Your task to perform on an android device: What's on my calendar today? Image 0: 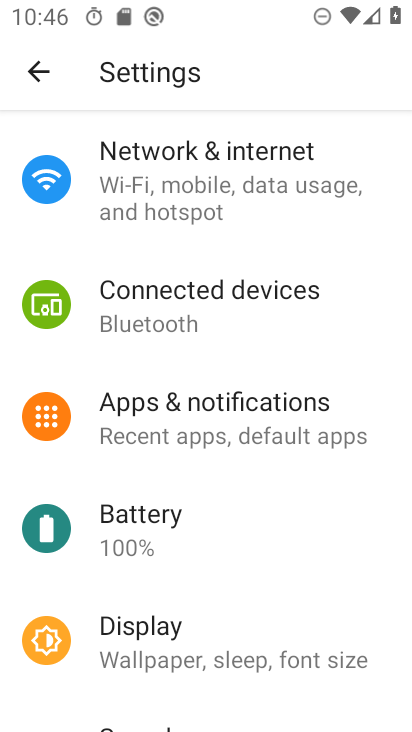
Step 0: press back button
Your task to perform on an android device: What's on my calendar today? Image 1: 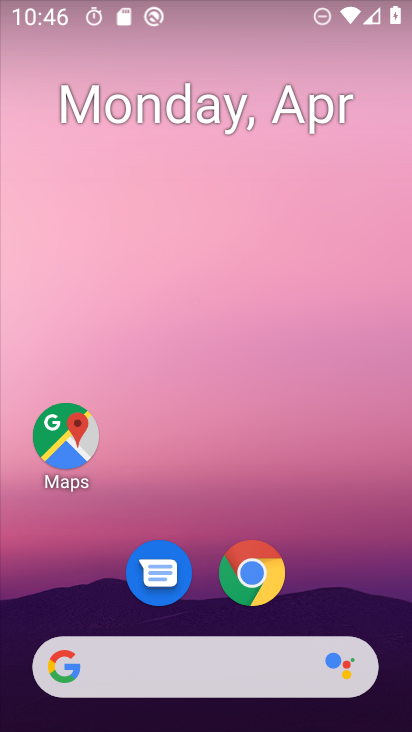
Step 1: drag from (334, 526) to (188, 2)
Your task to perform on an android device: What's on my calendar today? Image 2: 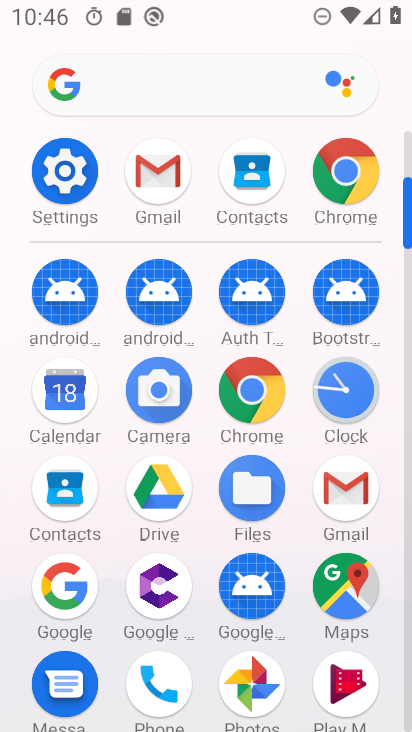
Step 2: click (74, 373)
Your task to perform on an android device: What's on my calendar today? Image 3: 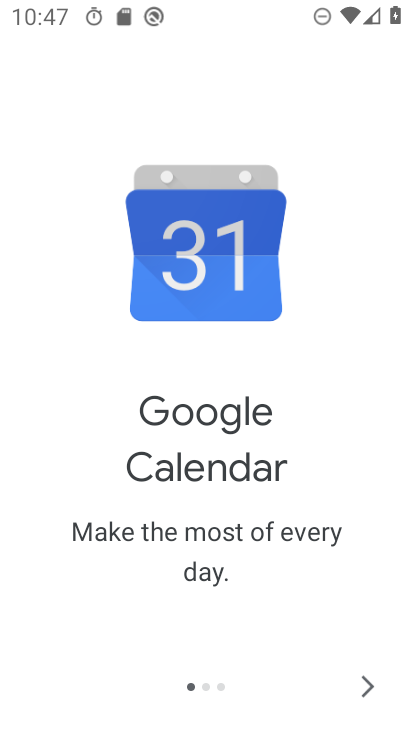
Step 3: click (372, 679)
Your task to perform on an android device: What's on my calendar today? Image 4: 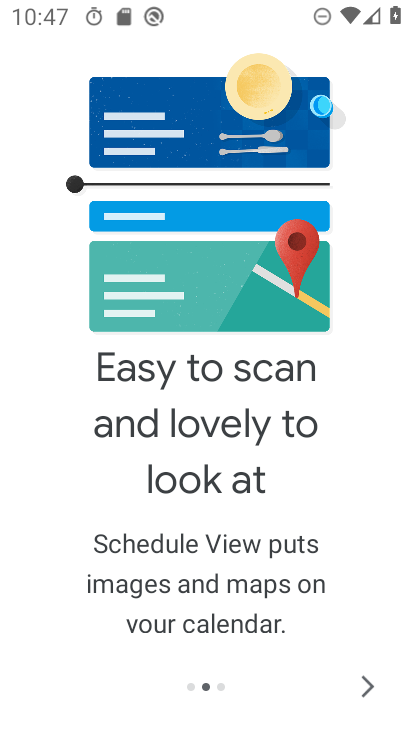
Step 4: click (371, 673)
Your task to perform on an android device: What's on my calendar today? Image 5: 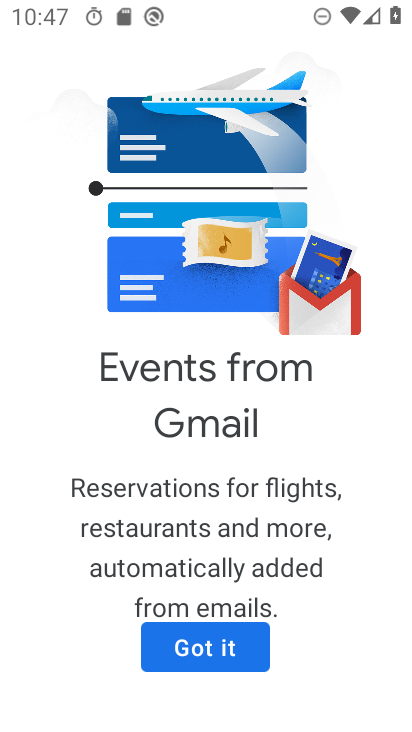
Step 5: click (159, 664)
Your task to perform on an android device: What's on my calendar today? Image 6: 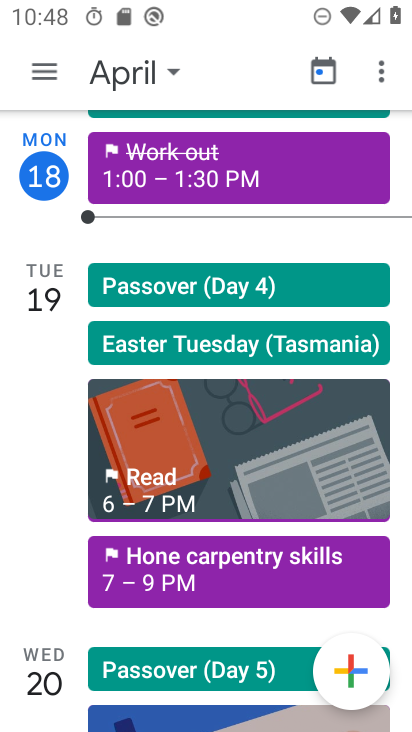
Step 6: click (130, 68)
Your task to perform on an android device: What's on my calendar today? Image 7: 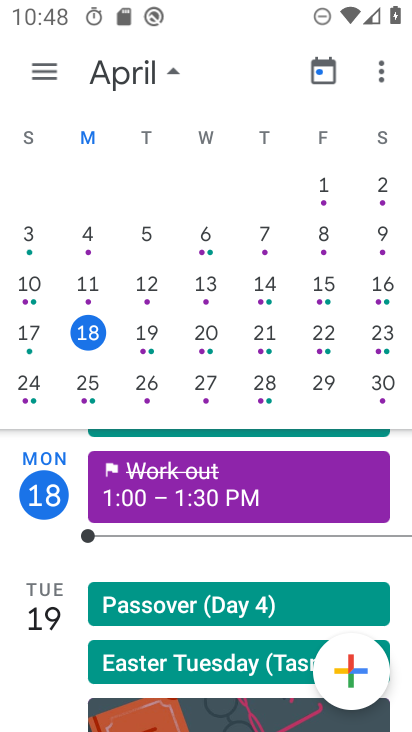
Step 7: task complete